Your task to perform on an android device: toggle pop-ups in chrome Image 0: 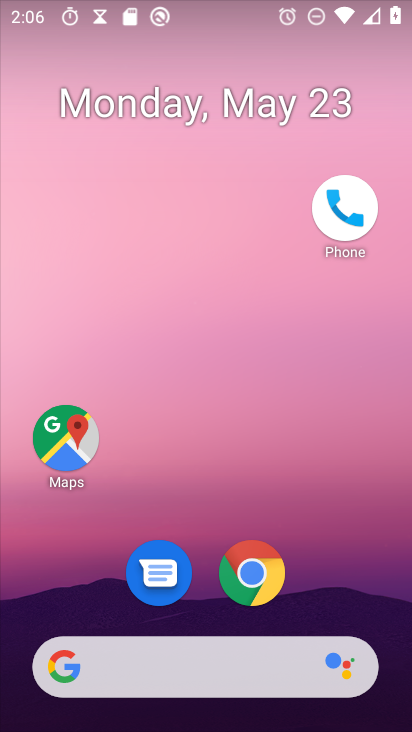
Step 0: press home button
Your task to perform on an android device: toggle pop-ups in chrome Image 1: 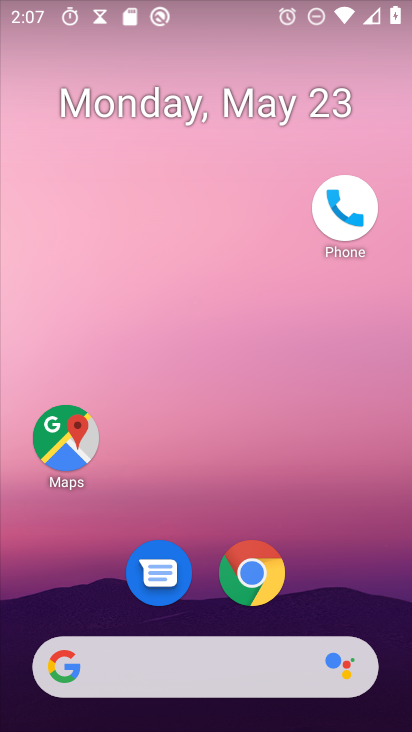
Step 1: click (243, 591)
Your task to perform on an android device: toggle pop-ups in chrome Image 2: 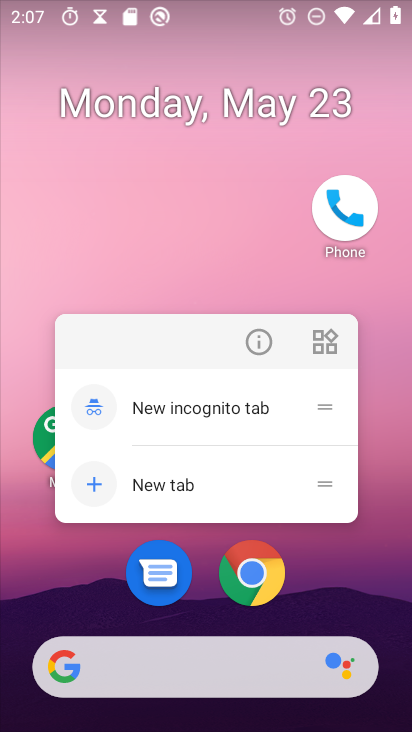
Step 2: click (257, 579)
Your task to perform on an android device: toggle pop-ups in chrome Image 3: 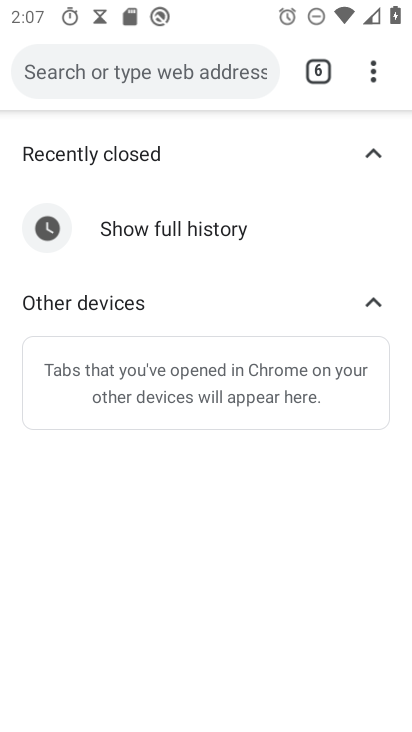
Step 3: drag from (373, 77) to (200, 608)
Your task to perform on an android device: toggle pop-ups in chrome Image 4: 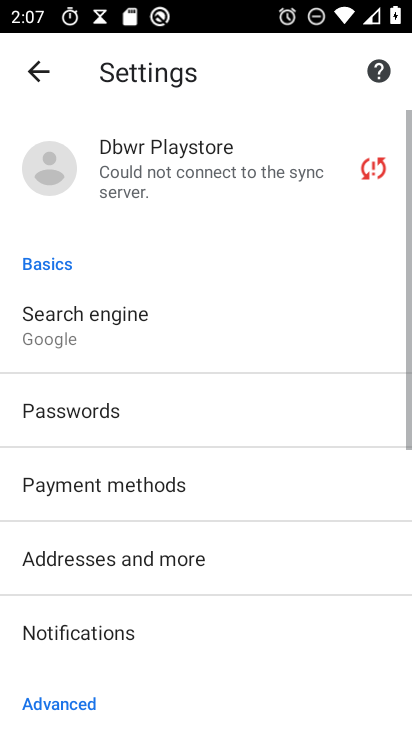
Step 4: drag from (202, 657) to (337, 120)
Your task to perform on an android device: toggle pop-ups in chrome Image 5: 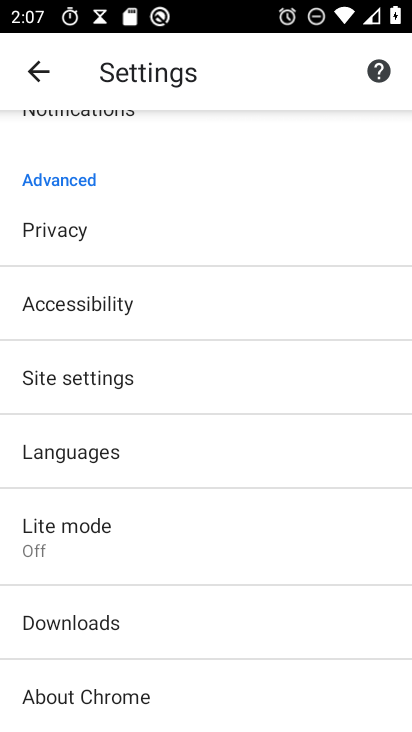
Step 5: click (103, 382)
Your task to perform on an android device: toggle pop-ups in chrome Image 6: 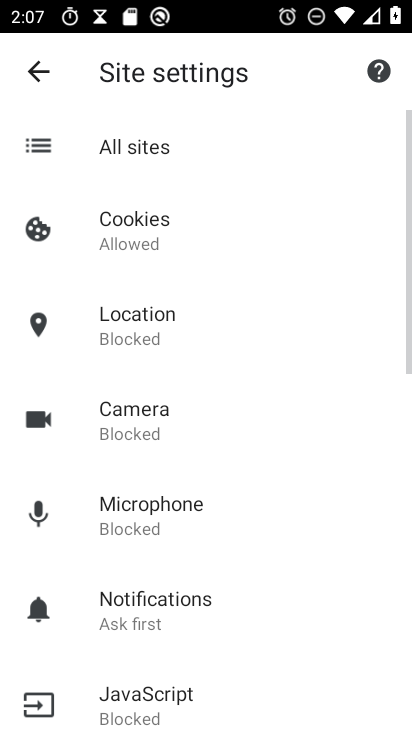
Step 6: drag from (194, 696) to (256, 246)
Your task to perform on an android device: toggle pop-ups in chrome Image 7: 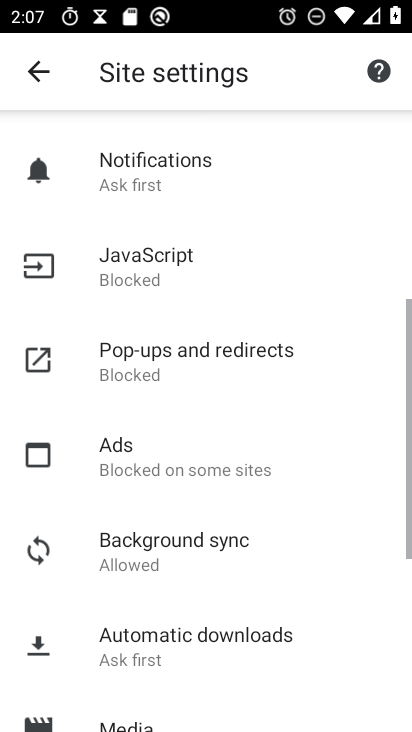
Step 7: click (201, 348)
Your task to perform on an android device: toggle pop-ups in chrome Image 8: 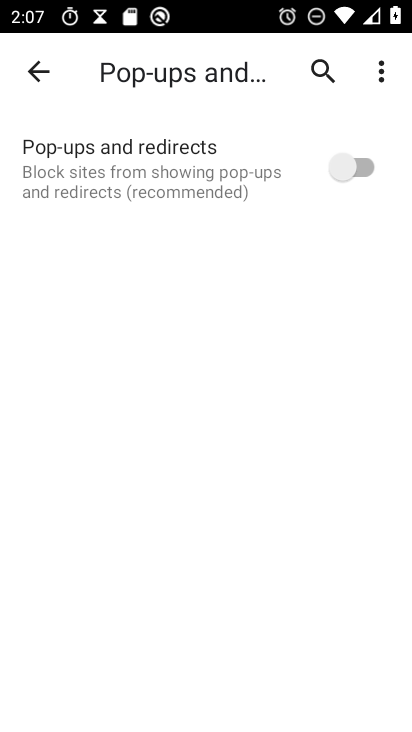
Step 8: click (362, 167)
Your task to perform on an android device: toggle pop-ups in chrome Image 9: 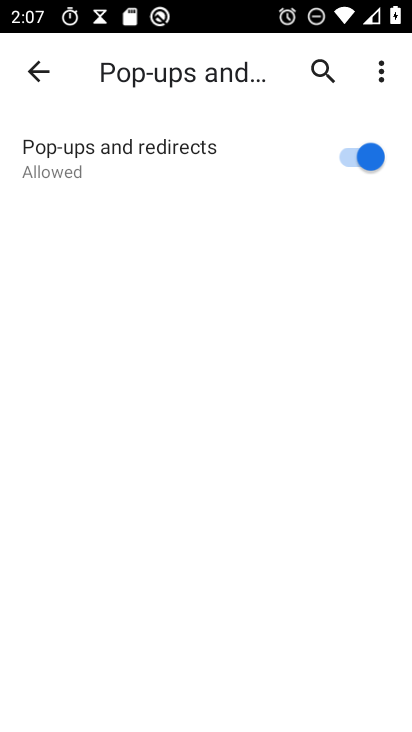
Step 9: task complete